Your task to perform on an android device: turn vacation reply on in the gmail app Image 0: 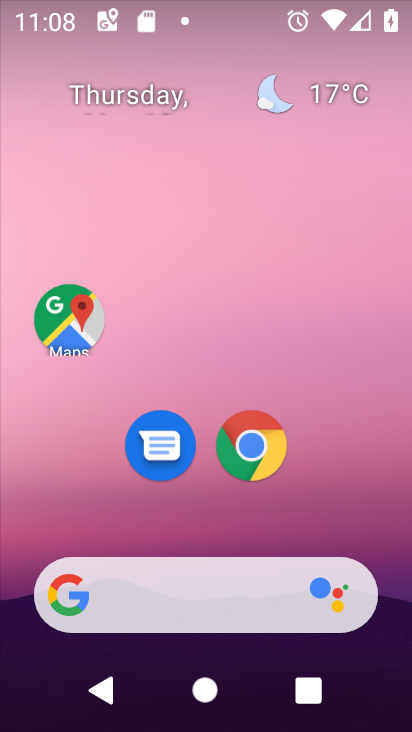
Step 0: drag from (214, 529) to (307, 148)
Your task to perform on an android device: turn vacation reply on in the gmail app Image 1: 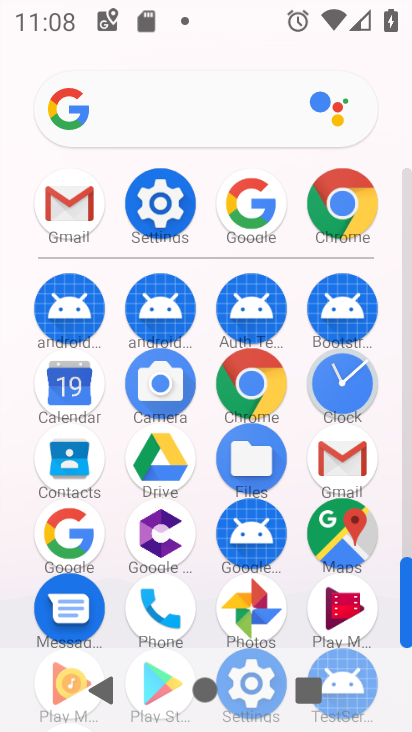
Step 1: click (320, 459)
Your task to perform on an android device: turn vacation reply on in the gmail app Image 2: 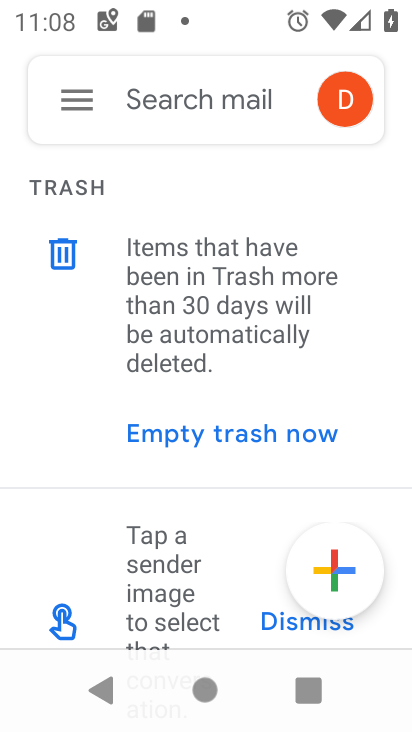
Step 2: click (89, 108)
Your task to perform on an android device: turn vacation reply on in the gmail app Image 3: 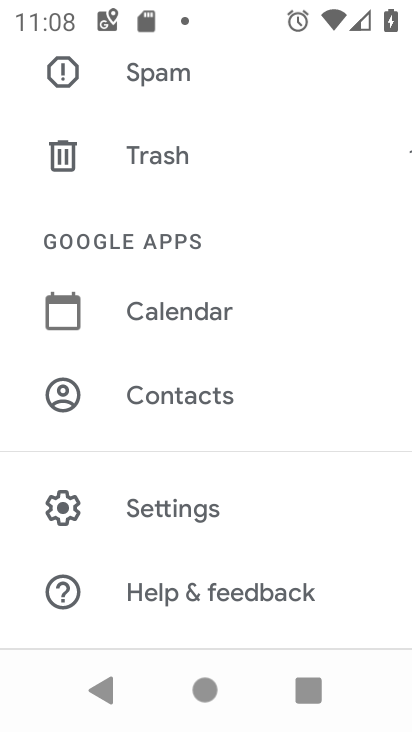
Step 3: click (194, 503)
Your task to perform on an android device: turn vacation reply on in the gmail app Image 4: 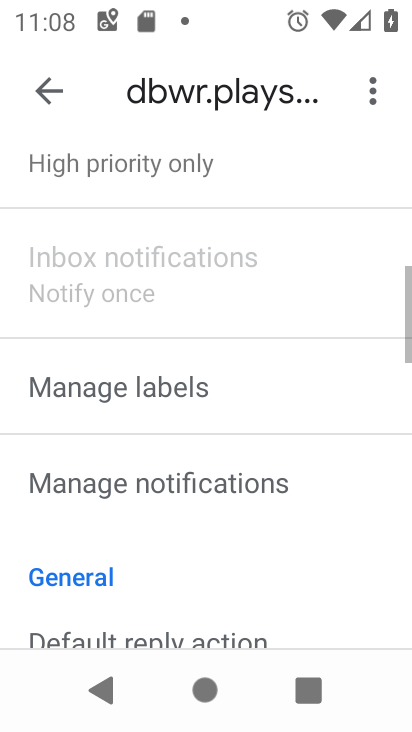
Step 4: drag from (186, 537) to (221, 144)
Your task to perform on an android device: turn vacation reply on in the gmail app Image 5: 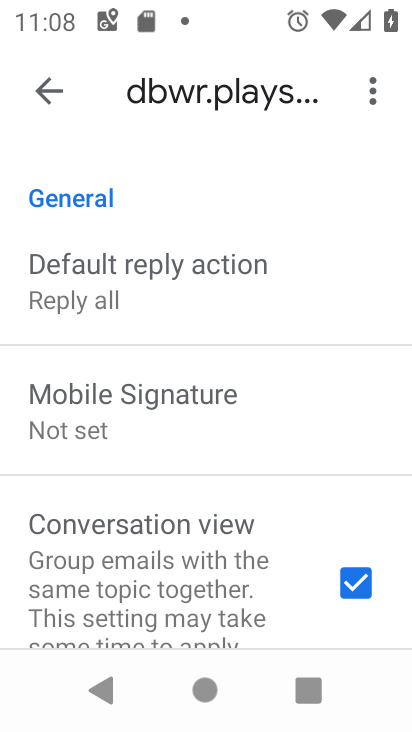
Step 5: drag from (165, 549) to (185, 146)
Your task to perform on an android device: turn vacation reply on in the gmail app Image 6: 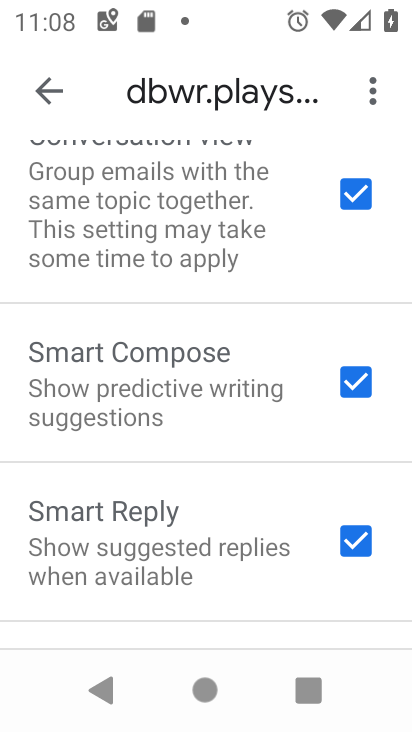
Step 6: drag from (158, 569) to (144, 231)
Your task to perform on an android device: turn vacation reply on in the gmail app Image 7: 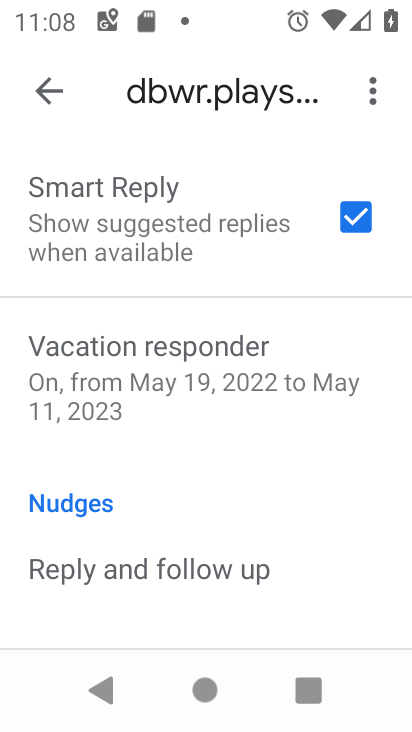
Step 7: click (202, 386)
Your task to perform on an android device: turn vacation reply on in the gmail app Image 8: 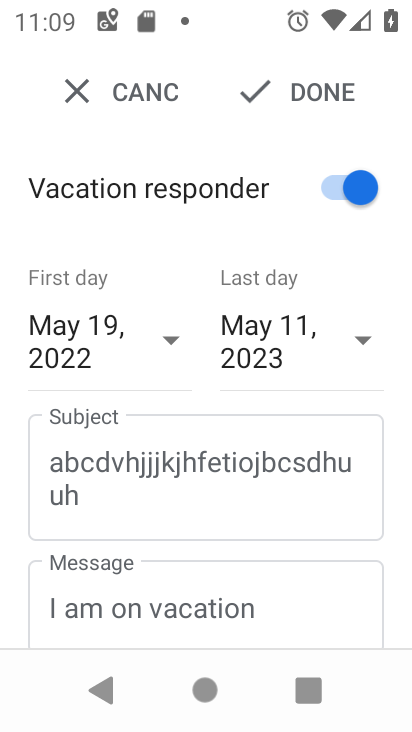
Step 8: click (318, 83)
Your task to perform on an android device: turn vacation reply on in the gmail app Image 9: 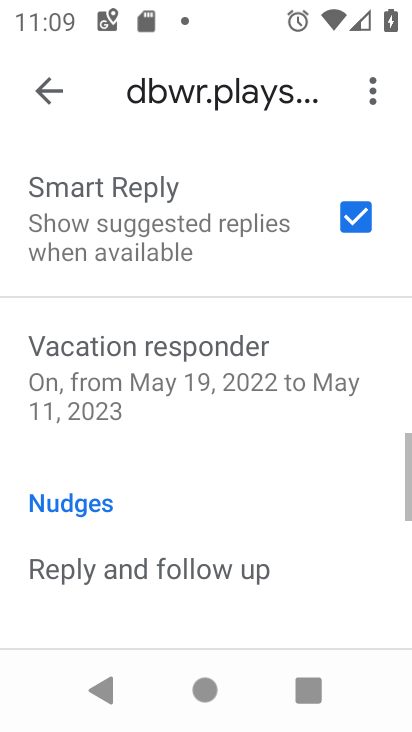
Step 9: task complete